Your task to perform on an android device: turn off translation in the chrome app Image 0: 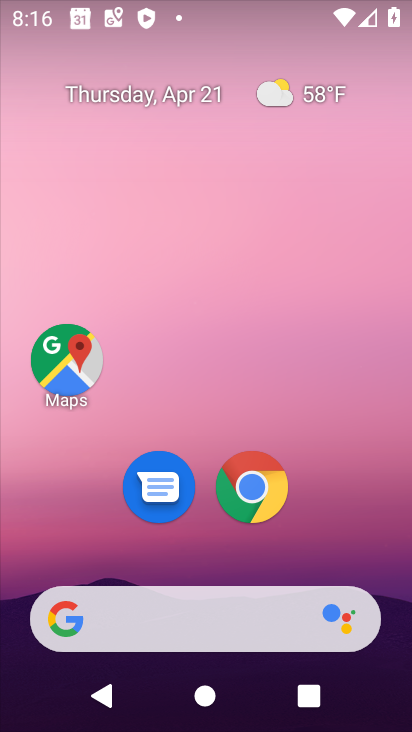
Step 0: drag from (347, 481) to (170, 0)
Your task to perform on an android device: turn off translation in the chrome app Image 1: 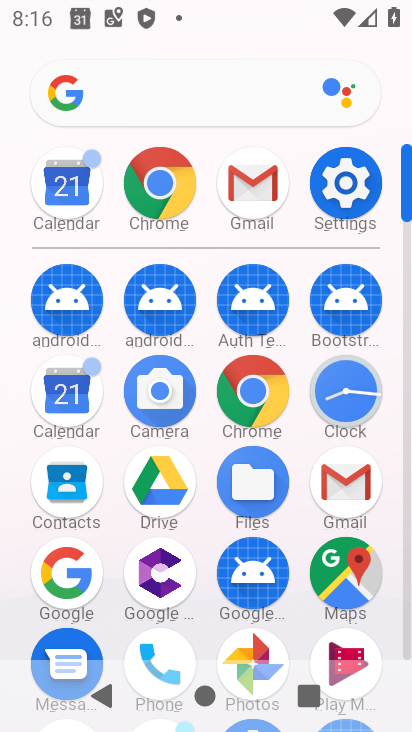
Step 1: drag from (16, 434) to (13, 146)
Your task to perform on an android device: turn off translation in the chrome app Image 2: 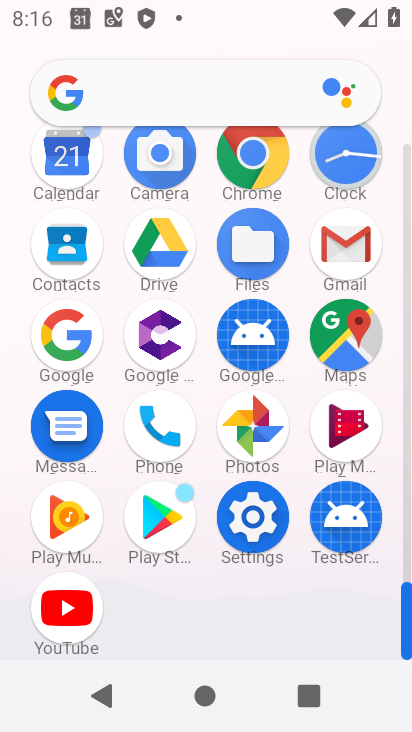
Step 2: click (248, 150)
Your task to perform on an android device: turn off translation in the chrome app Image 3: 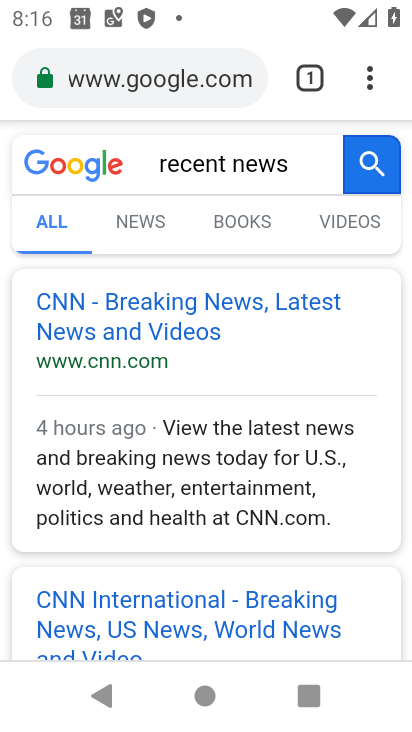
Step 3: drag from (363, 82) to (112, 547)
Your task to perform on an android device: turn off translation in the chrome app Image 4: 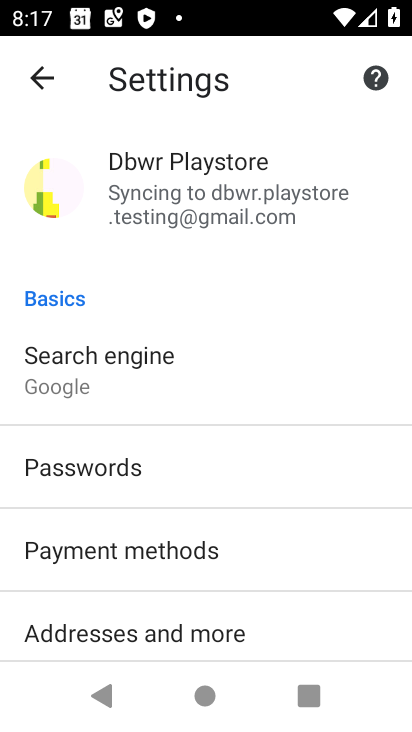
Step 4: drag from (316, 546) to (296, 221)
Your task to perform on an android device: turn off translation in the chrome app Image 5: 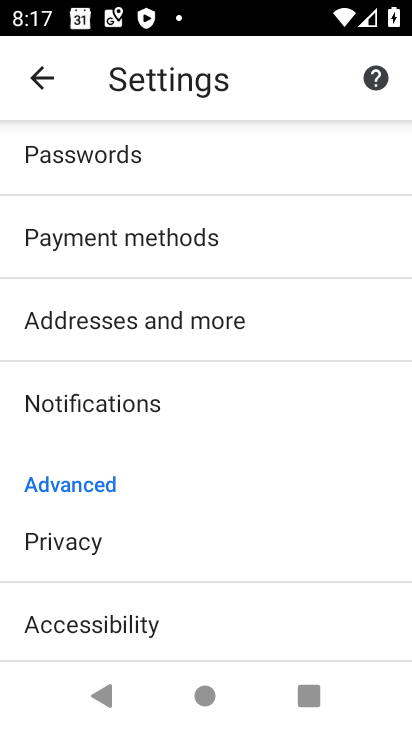
Step 5: drag from (296, 201) to (298, 34)
Your task to perform on an android device: turn off translation in the chrome app Image 6: 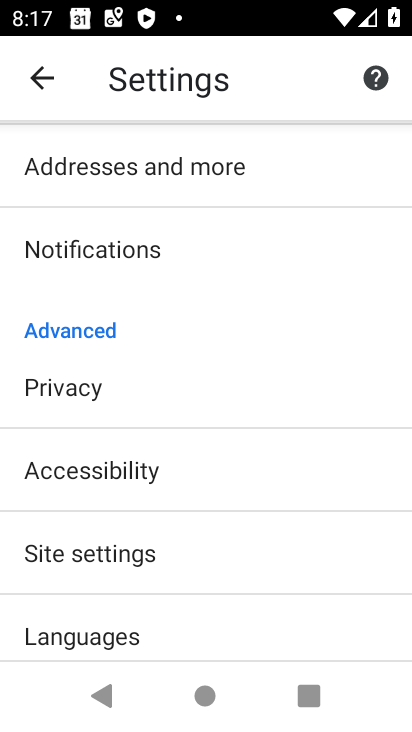
Step 6: click (128, 534)
Your task to perform on an android device: turn off translation in the chrome app Image 7: 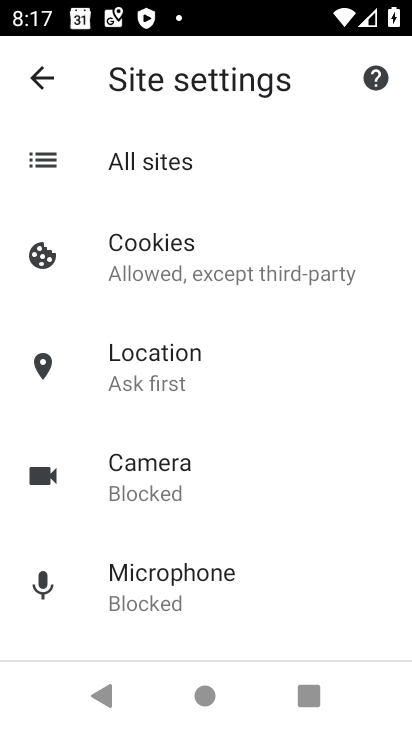
Step 7: click (28, 71)
Your task to perform on an android device: turn off translation in the chrome app Image 8: 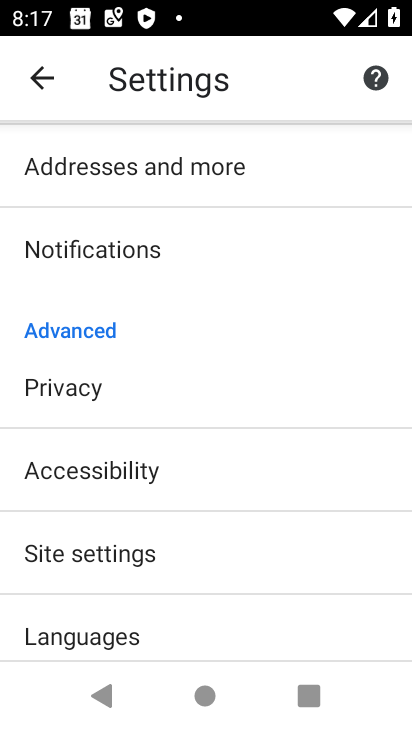
Step 8: click (91, 624)
Your task to perform on an android device: turn off translation in the chrome app Image 9: 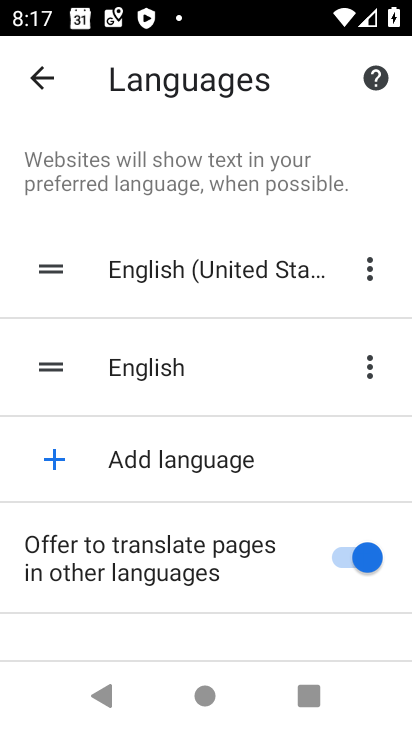
Step 9: click (351, 559)
Your task to perform on an android device: turn off translation in the chrome app Image 10: 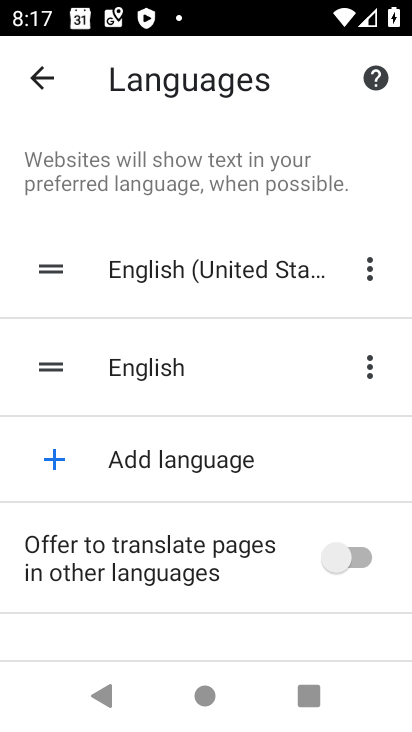
Step 10: task complete